Your task to perform on an android device: open chrome privacy settings Image 0: 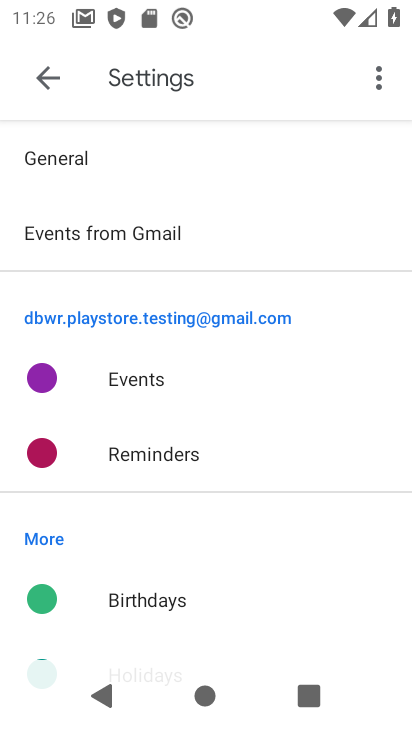
Step 0: press home button
Your task to perform on an android device: open chrome privacy settings Image 1: 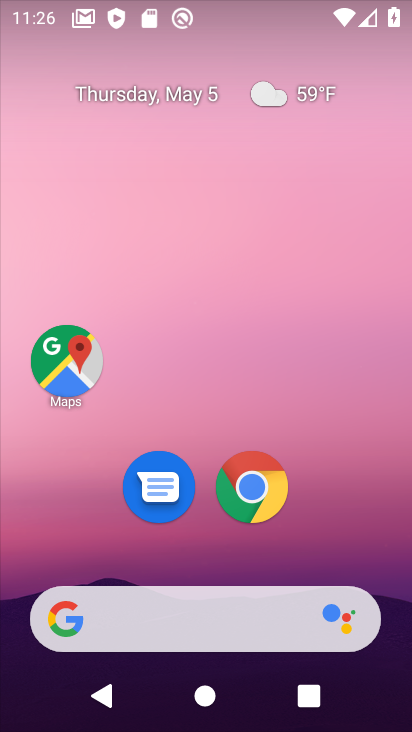
Step 1: click (237, 464)
Your task to perform on an android device: open chrome privacy settings Image 2: 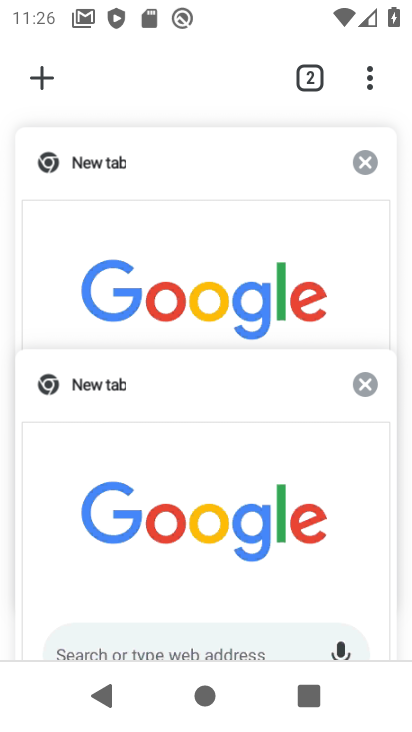
Step 2: drag from (369, 75) to (80, 295)
Your task to perform on an android device: open chrome privacy settings Image 3: 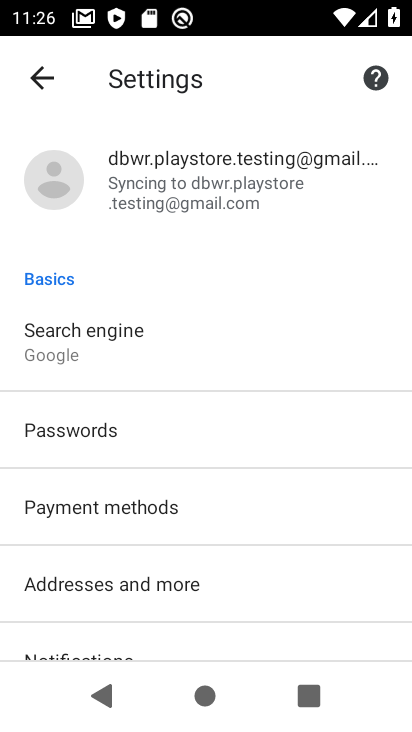
Step 3: drag from (267, 617) to (266, 203)
Your task to perform on an android device: open chrome privacy settings Image 4: 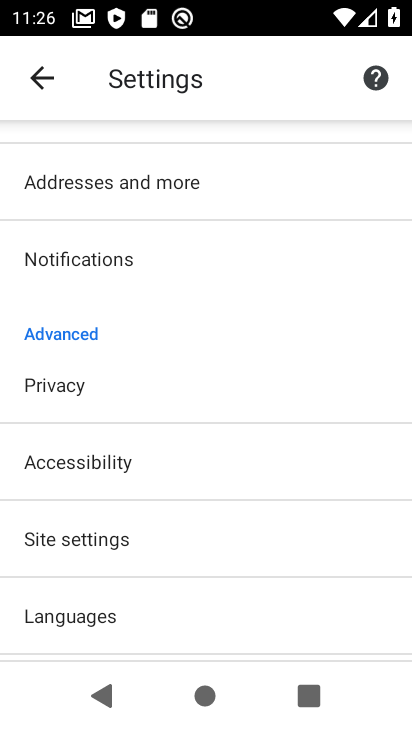
Step 4: click (58, 381)
Your task to perform on an android device: open chrome privacy settings Image 5: 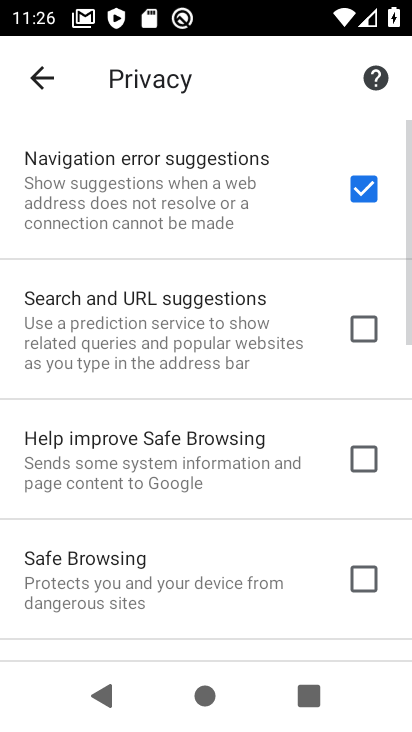
Step 5: task complete